Your task to perform on an android device: Open Google Chrome and open the bookmarks view Image 0: 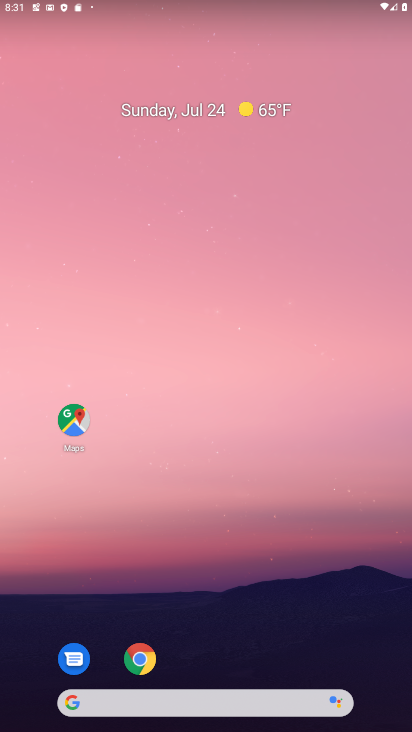
Step 0: click (136, 659)
Your task to perform on an android device: Open Google Chrome and open the bookmarks view Image 1: 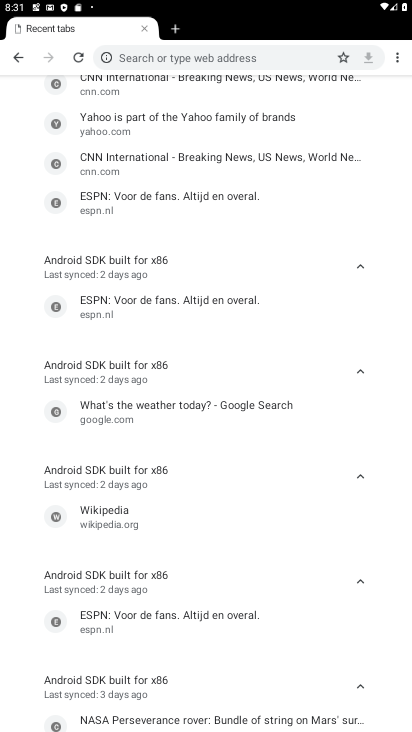
Step 1: click (396, 53)
Your task to perform on an android device: Open Google Chrome and open the bookmarks view Image 2: 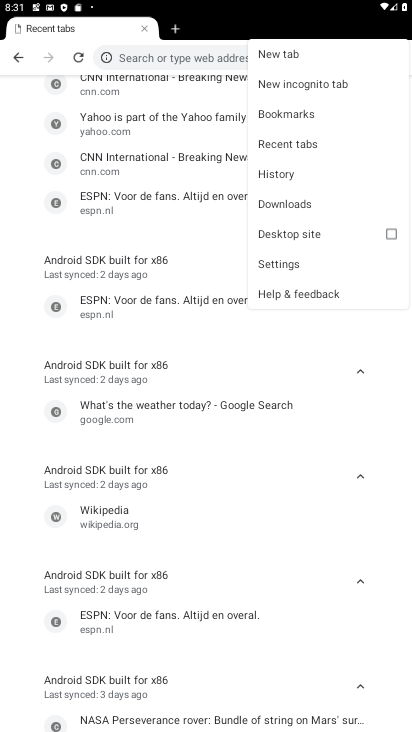
Step 2: click (273, 117)
Your task to perform on an android device: Open Google Chrome and open the bookmarks view Image 3: 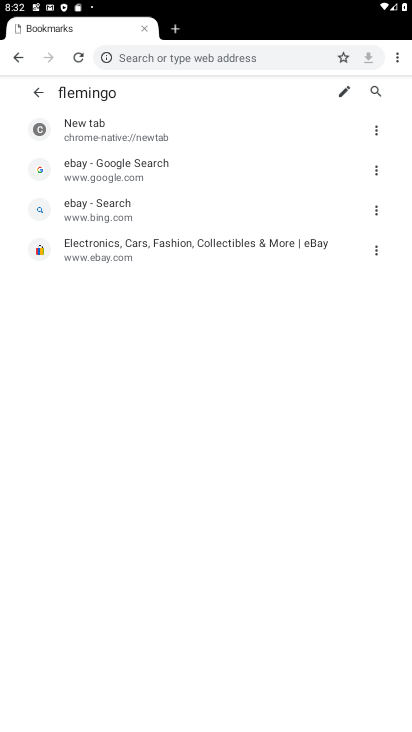
Step 3: task complete